Your task to perform on an android device: toggle priority inbox in the gmail app Image 0: 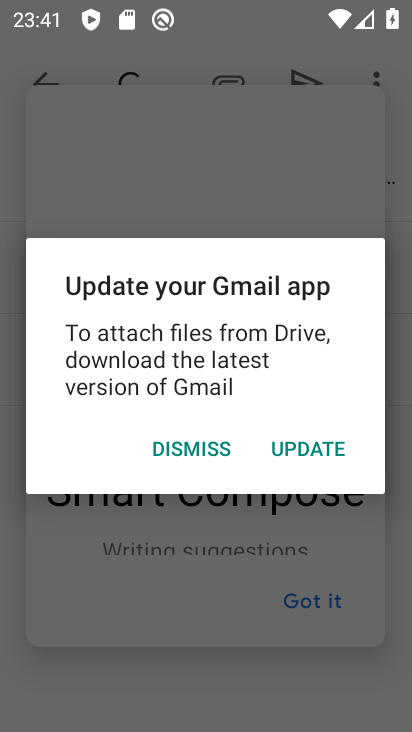
Step 0: press home button
Your task to perform on an android device: toggle priority inbox in the gmail app Image 1: 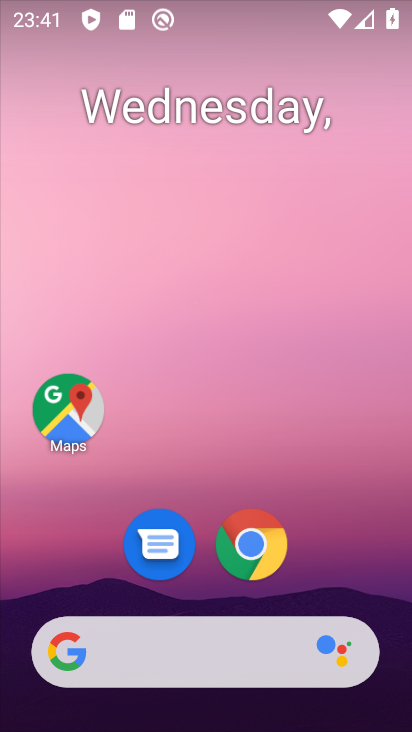
Step 1: drag from (353, 583) to (335, 0)
Your task to perform on an android device: toggle priority inbox in the gmail app Image 2: 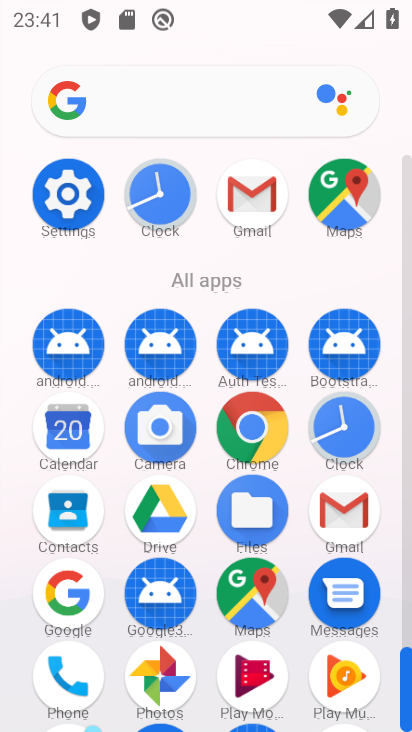
Step 2: click (235, 214)
Your task to perform on an android device: toggle priority inbox in the gmail app Image 3: 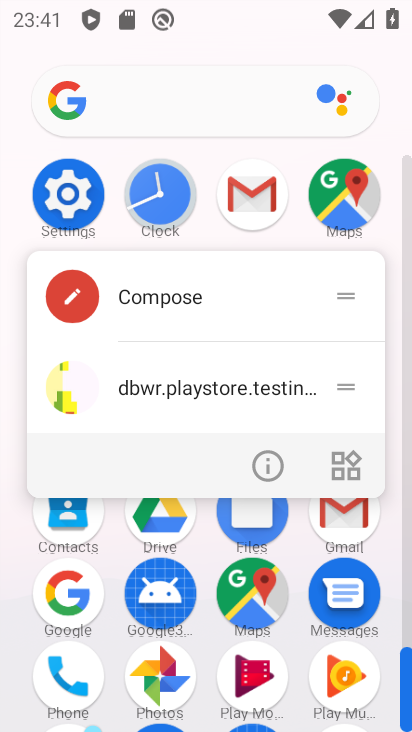
Step 3: click (235, 214)
Your task to perform on an android device: toggle priority inbox in the gmail app Image 4: 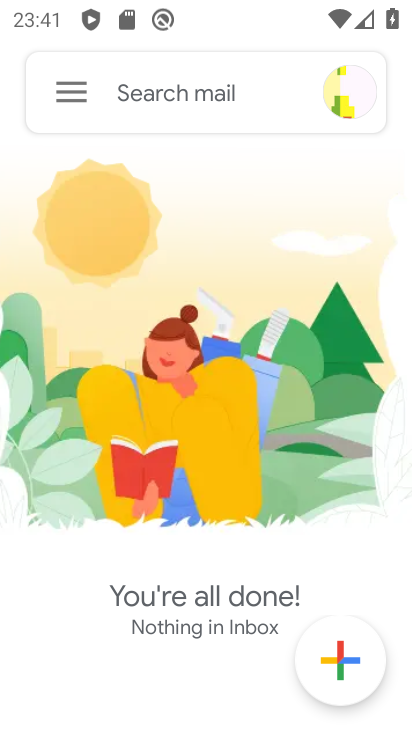
Step 4: click (81, 87)
Your task to perform on an android device: toggle priority inbox in the gmail app Image 5: 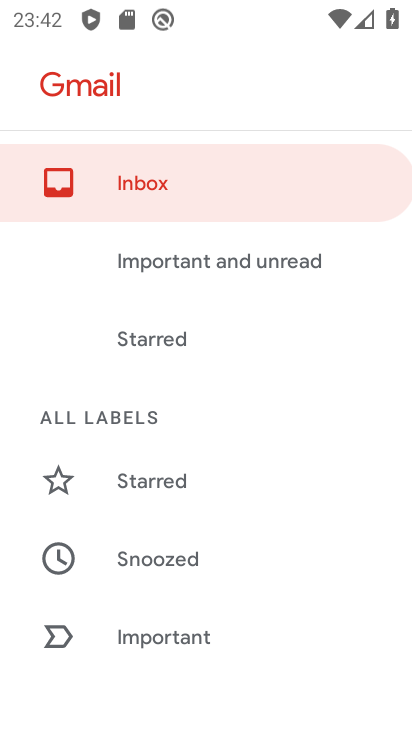
Step 5: drag from (363, 609) to (322, 225)
Your task to perform on an android device: toggle priority inbox in the gmail app Image 6: 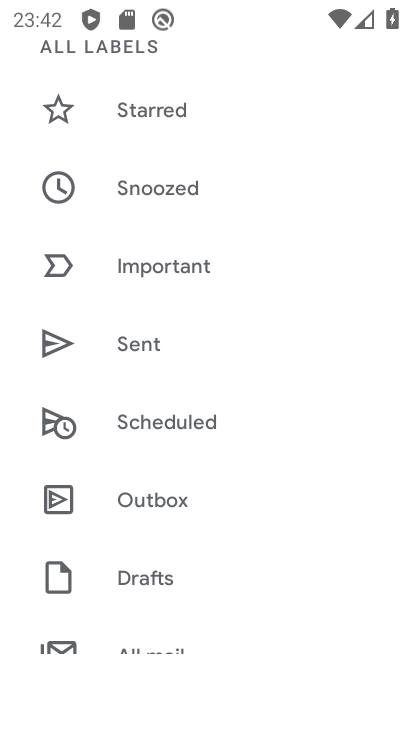
Step 6: drag from (258, 642) to (248, 318)
Your task to perform on an android device: toggle priority inbox in the gmail app Image 7: 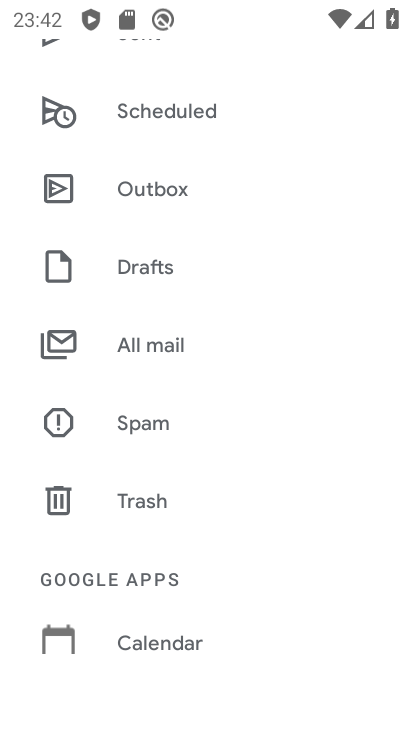
Step 7: drag from (232, 536) to (240, 156)
Your task to perform on an android device: toggle priority inbox in the gmail app Image 8: 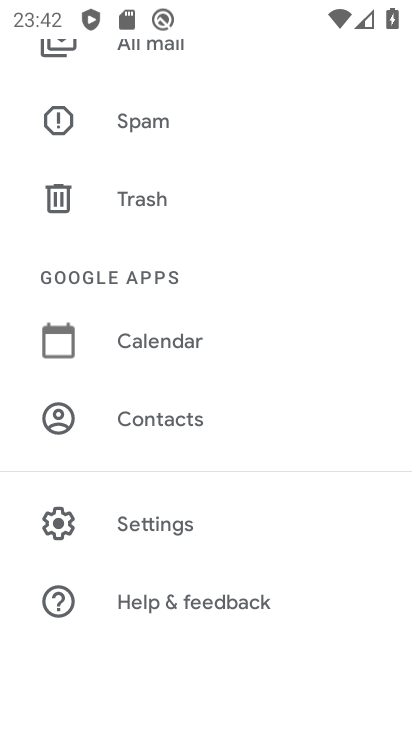
Step 8: click (209, 533)
Your task to perform on an android device: toggle priority inbox in the gmail app Image 9: 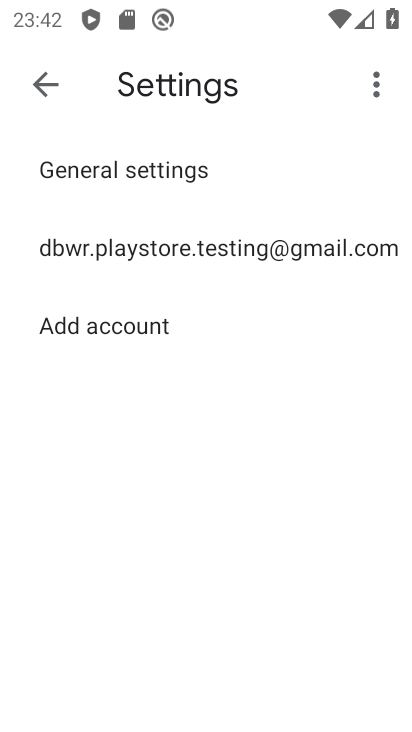
Step 9: click (287, 259)
Your task to perform on an android device: toggle priority inbox in the gmail app Image 10: 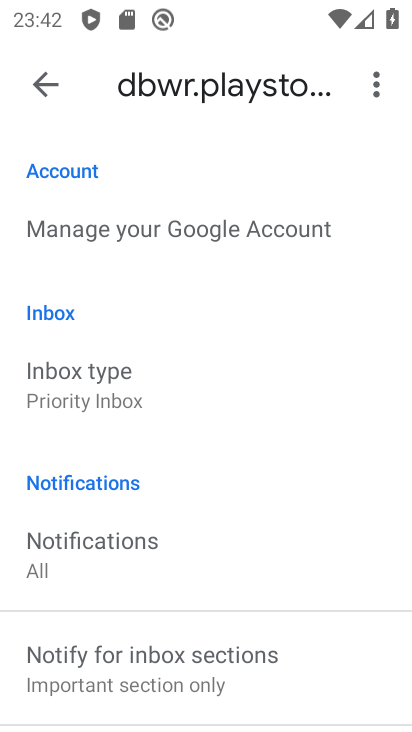
Step 10: drag from (256, 512) to (241, 306)
Your task to perform on an android device: toggle priority inbox in the gmail app Image 11: 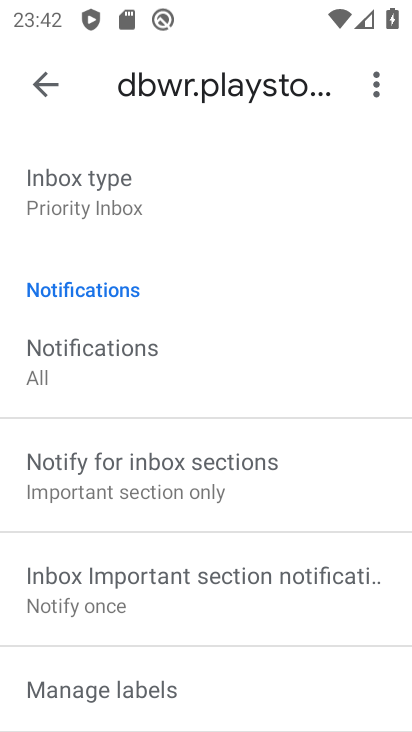
Step 11: drag from (242, 658) to (198, 338)
Your task to perform on an android device: toggle priority inbox in the gmail app Image 12: 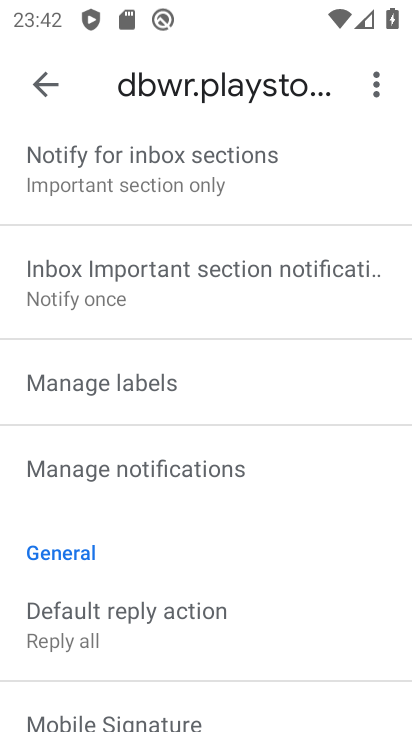
Step 12: drag from (251, 209) to (280, 731)
Your task to perform on an android device: toggle priority inbox in the gmail app Image 13: 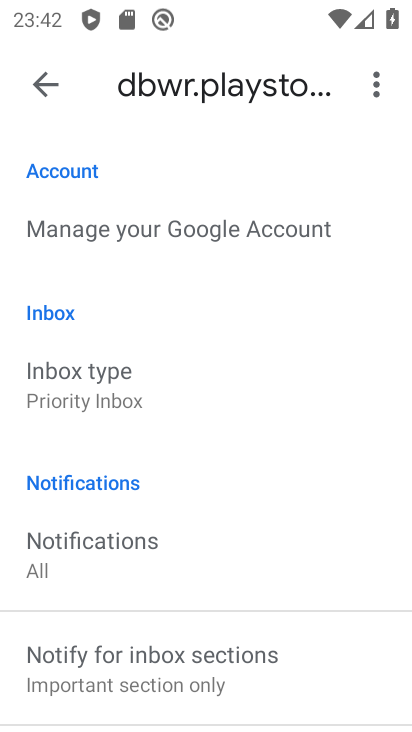
Step 13: drag from (131, 203) to (166, 495)
Your task to perform on an android device: toggle priority inbox in the gmail app Image 14: 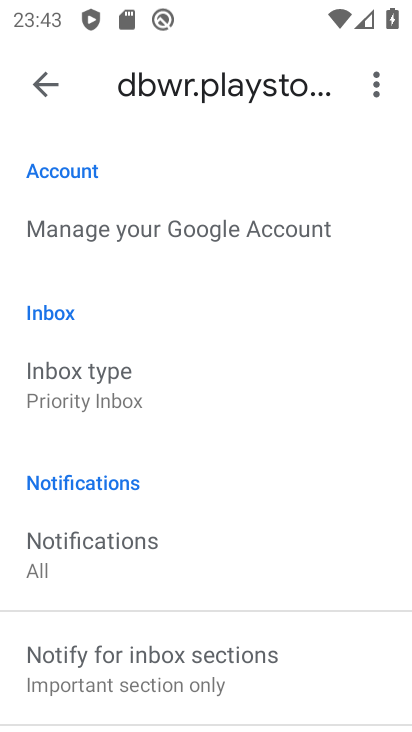
Step 14: click (190, 379)
Your task to perform on an android device: toggle priority inbox in the gmail app Image 15: 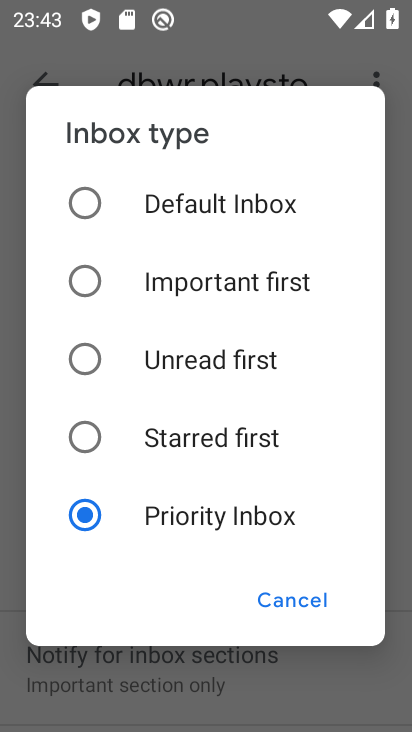
Step 15: click (108, 526)
Your task to perform on an android device: toggle priority inbox in the gmail app Image 16: 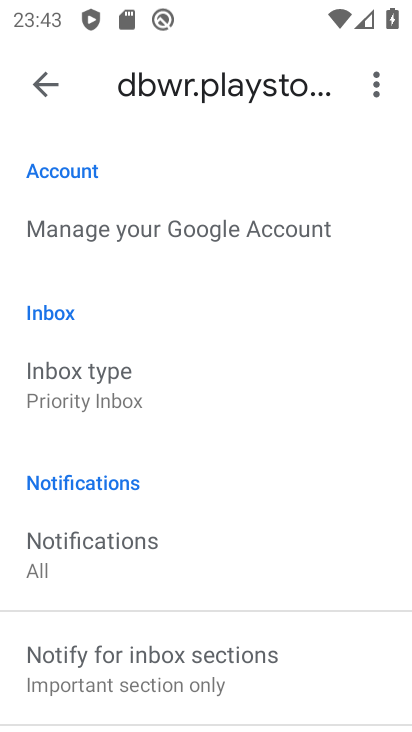
Step 16: task complete